Your task to perform on an android device: turn off picture-in-picture Image 0: 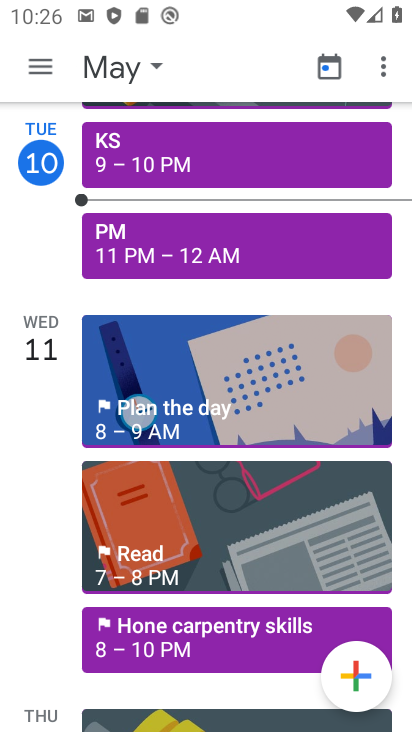
Step 0: press home button
Your task to perform on an android device: turn off picture-in-picture Image 1: 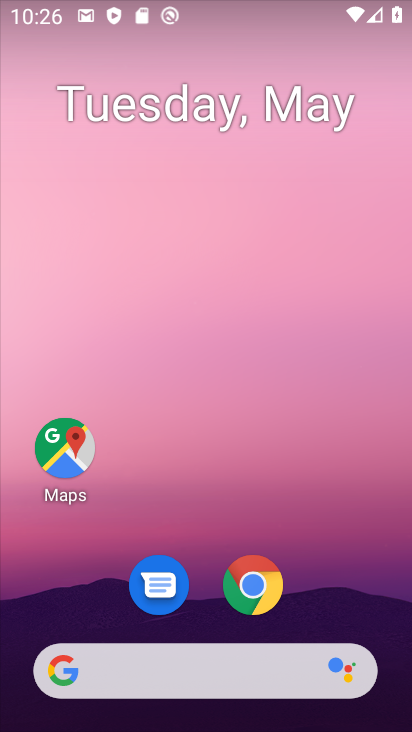
Step 1: click (246, 586)
Your task to perform on an android device: turn off picture-in-picture Image 2: 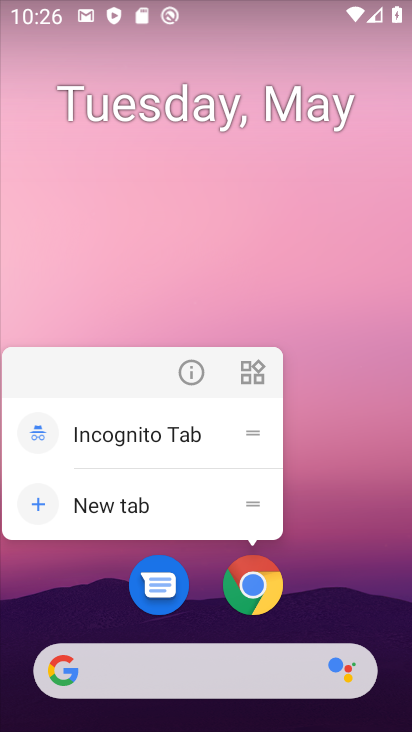
Step 2: click (195, 369)
Your task to perform on an android device: turn off picture-in-picture Image 3: 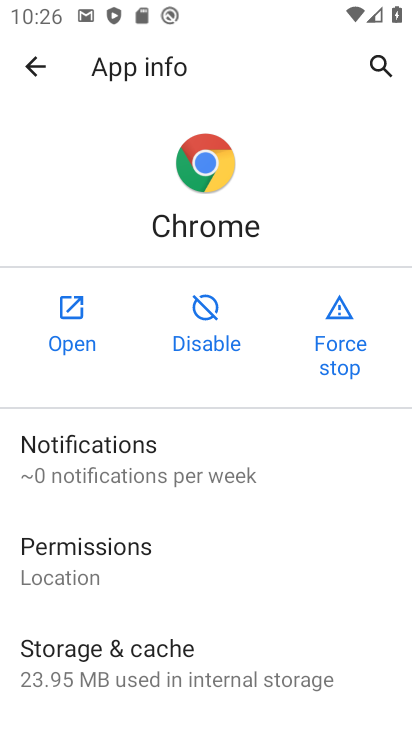
Step 3: drag from (231, 636) to (297, 269)
Your task to perform on an android device: turn off picture-in-picture Image 4: 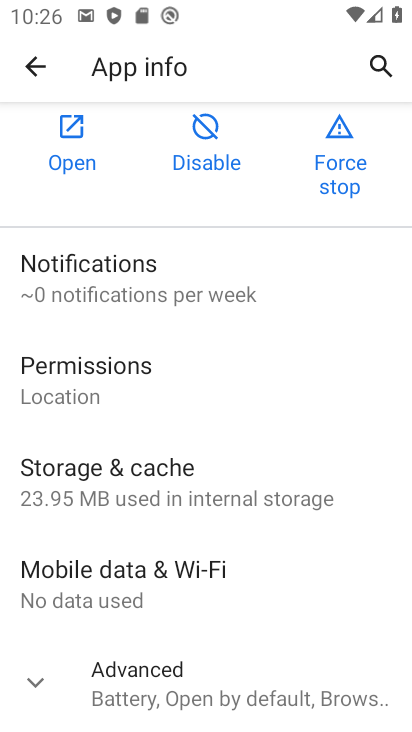
Step 4: click (28, 676)
Your task to perform on an android device: turn off picture-in-picture Image 5: 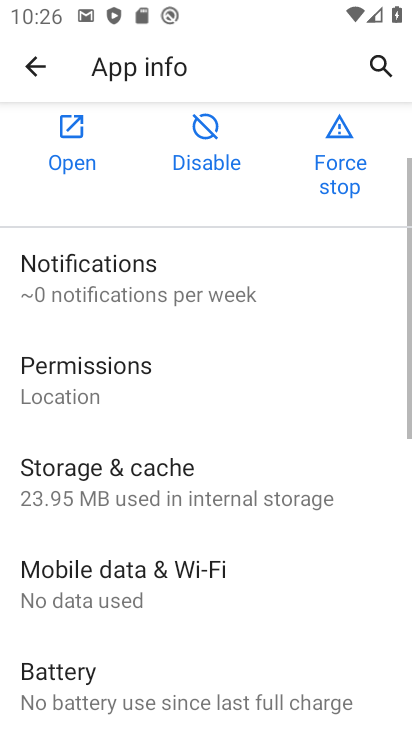
Step 5: drag from (188, 603) to (216, 308)
Your task to perform on an android device: turn off picture-in-picture Image 6: 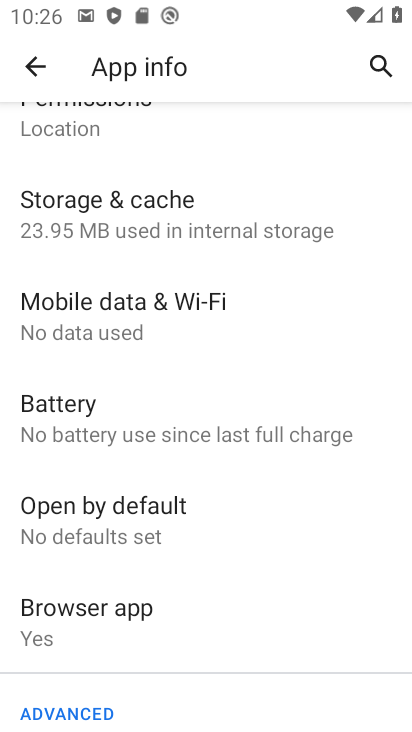
Step 6: drag from (199, 585) to (213, 283)
Your task to perform on an android device: turn off picture-in-picture Image 7: 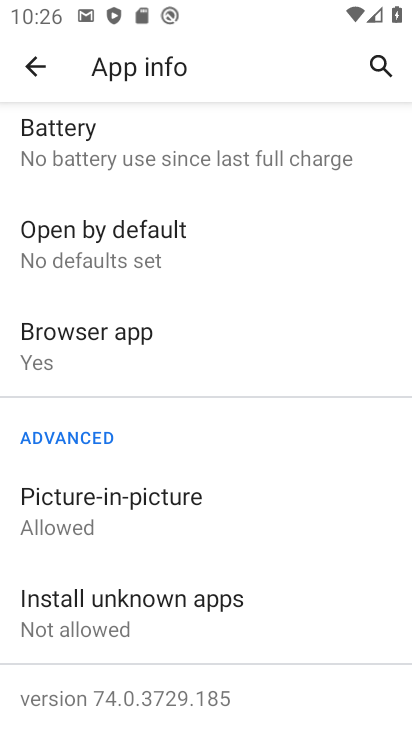
Step 7: click (159, 514)
Your task to perform on an android device: turn off picture-in-picture Image 8: 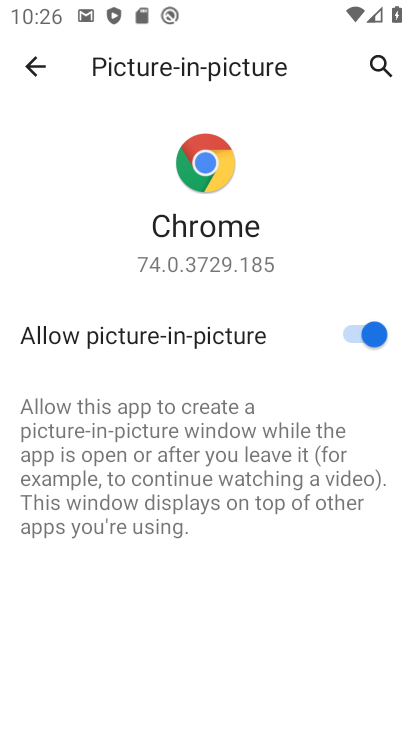
Step 8: click (351, 330)
Your task to perform on an android device: turn off picture-in-picture Image 9: 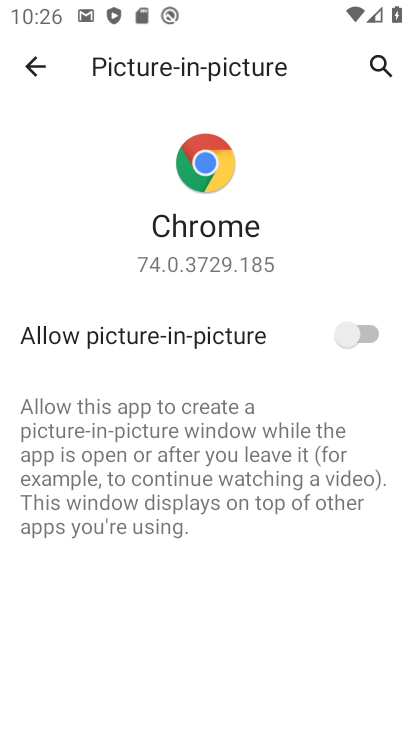
Step 9: task complete